Your task to perform on an android device: change the upload size in google photos Image 0: 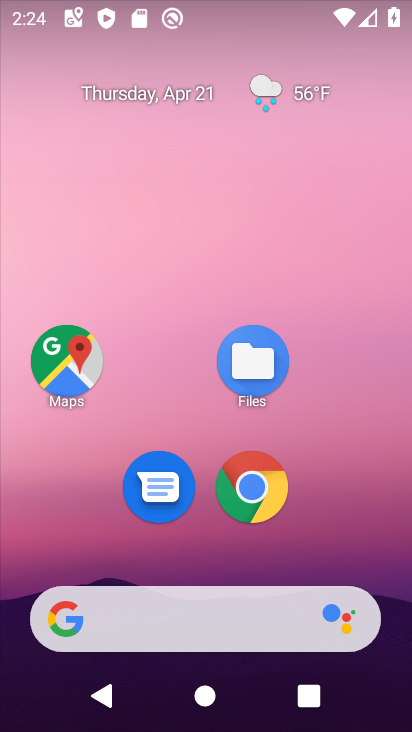
Step 0: drag from (381, 547) to (380, 156)
Your task to perform on an android device: change the upload size in google photos Image 1: 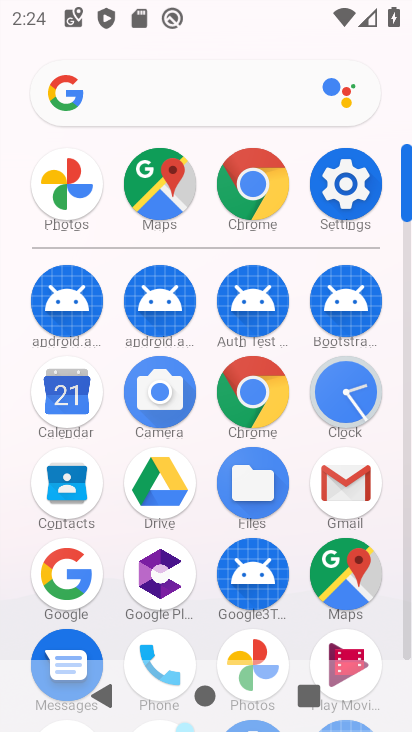
Step 1: click (255, 652)
Your task to perform on an android device: change the upload size in google photos Image 2: 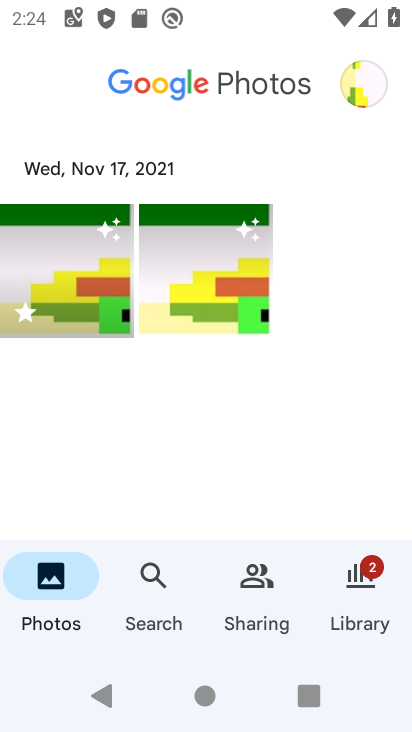
Step 2: click (378, 69)
Your task to perform on an android device: change the upload size in google photos Image 3: 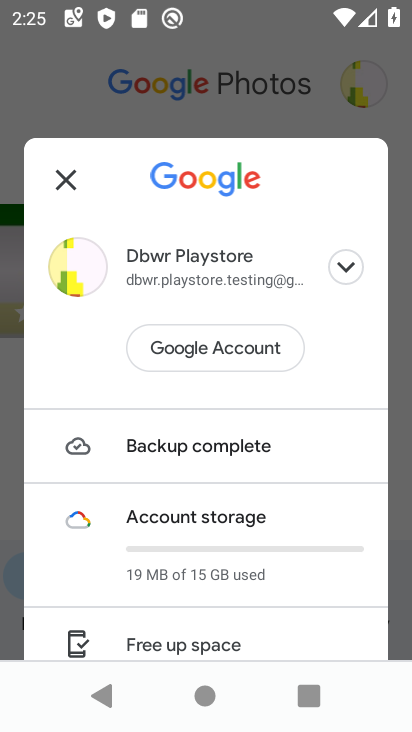
Step 3: drag from (293, 635) to (317, 242)
Your task to perform on an android device: change the upload size in google photos Image 4: 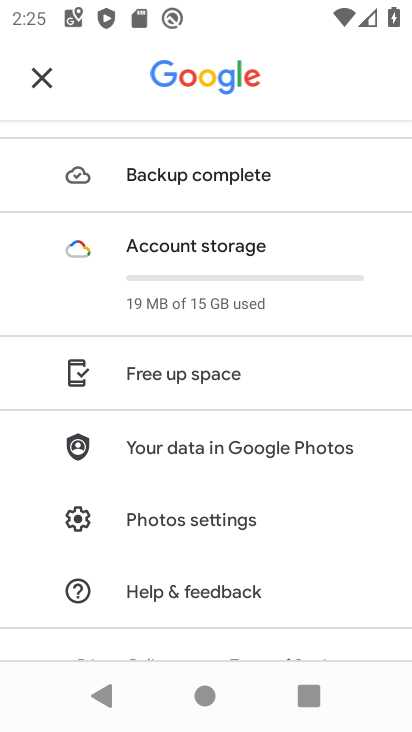
Step 4: click (244, 517)
Your task to perform on an android device: change the upload size in google photos Image 5: 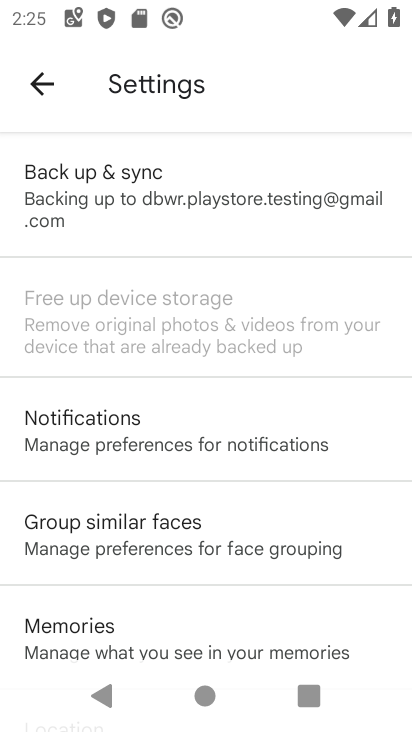
Step 5: click (215, 203)
Your task to perform on an android device: change the upload size in google photos Image 6: 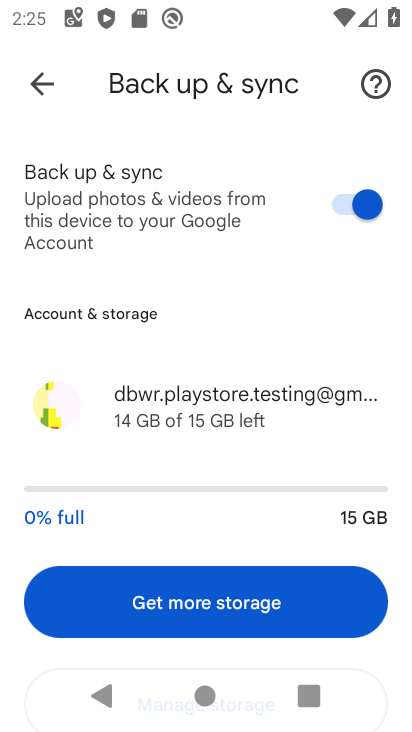
Step 6: drag from (168, 507) to (178, 174)
Your task to perform on an android device: change the upload size in google photos Image 7: 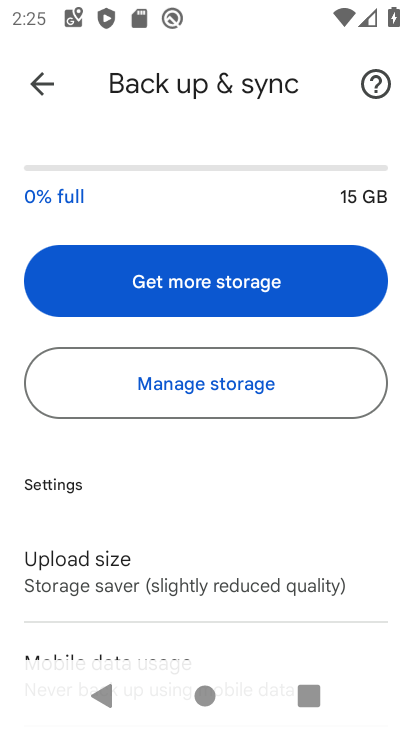
Step 7: click (157, 570)
Your task to perform on an android device: change the upload size in google photos Image 8: 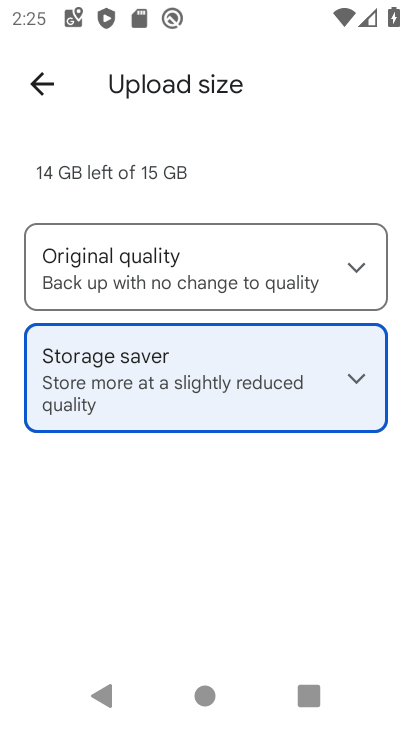
Step 8: click (184, 264)
Your task to perform on an android device: change the upload size in google photos Image 9: 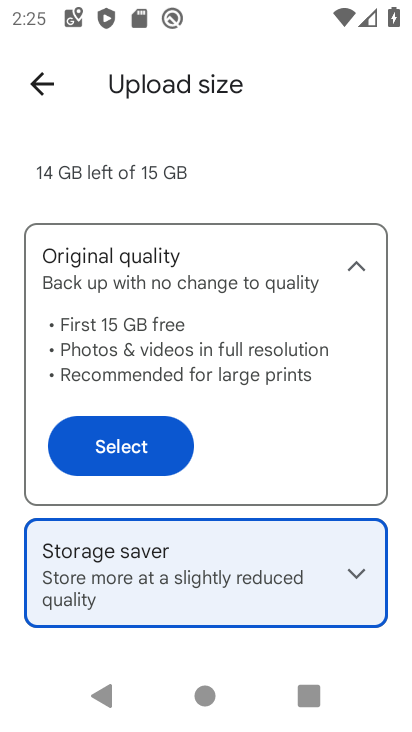
Step 9: click (84, 445)
Your task to perform on an android device: change the upload size in google photos Image 10: 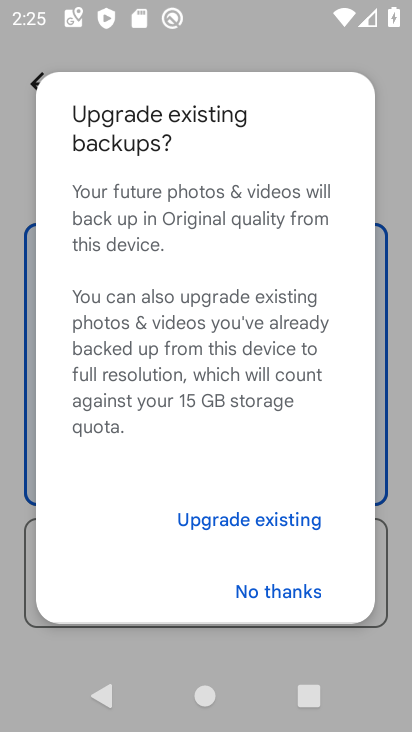
Step 10: click (238, 589)
Your task to perform on an android device: change the upload size in google photos Image 11: 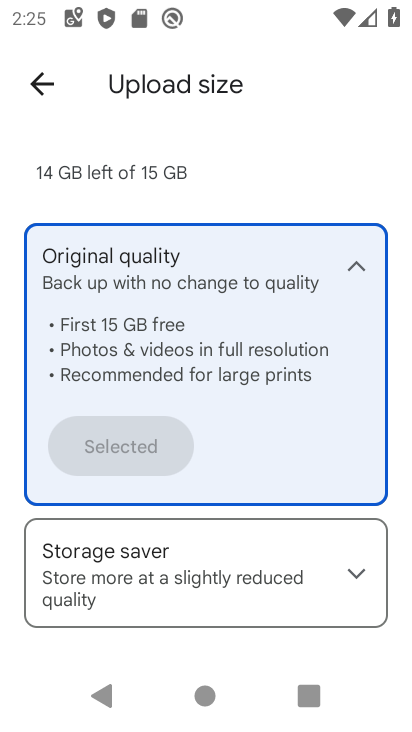
Step 11: task complete